Your task to perform on an android device: Toggle the flashlight Image 0: 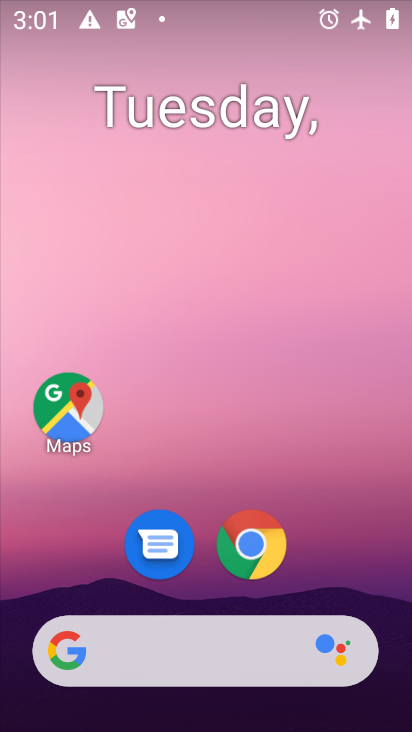
Step 0: drag from (340, 505) to (252, 46)
Your task to perform on an android device: Toggle the flashlight Image 1: 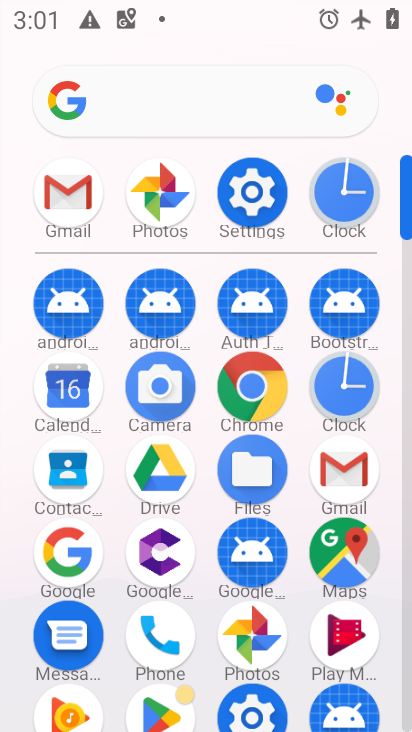
Step 1: click (243, 193)
Your task to perform on an android device: Toggle the flashlight Image 2: 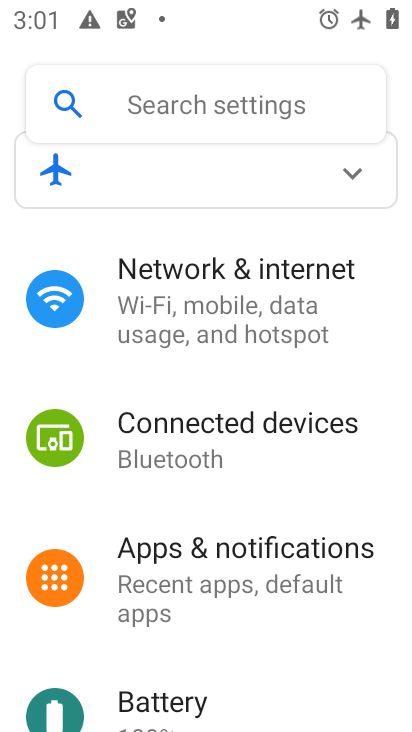
Step 2: drag from (262, 638) to (313, 116)
Your task to perform on an android device: Toggle the flashlight Image 3: 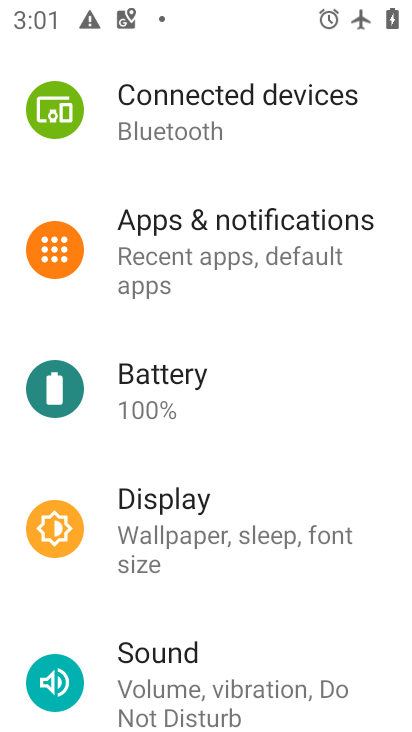
Step 3: click (214, 530)
Your task to perform on an android device: Toggle the flashlight Image 4: 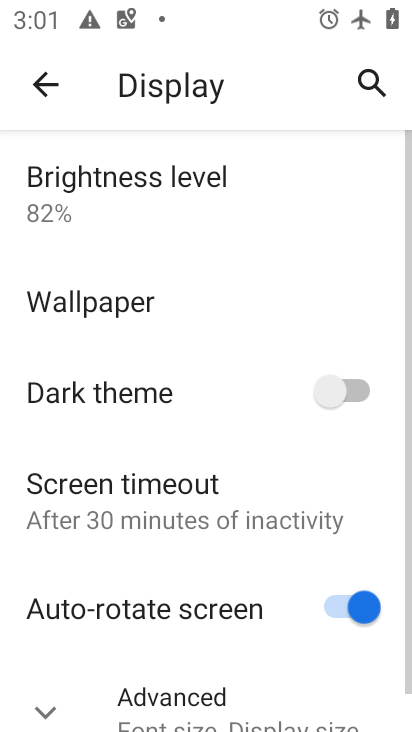
Step 4: task complete